Your task to perform on an android device: Open Chrome and go to the settings page Image 0: 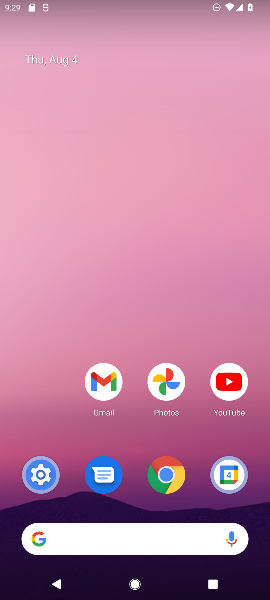
Step 0: drag from (131, 502) to (183, 187)
Your task to perform on an android device: Open Chrome and go to the settings page Image 1: 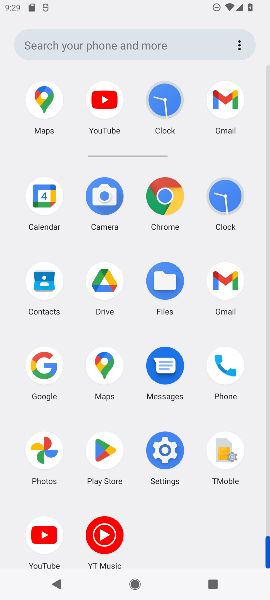
Step 1: click (163, 198)
Your task to perform on an android device: Open Chrome and go to the settings page Image 2: 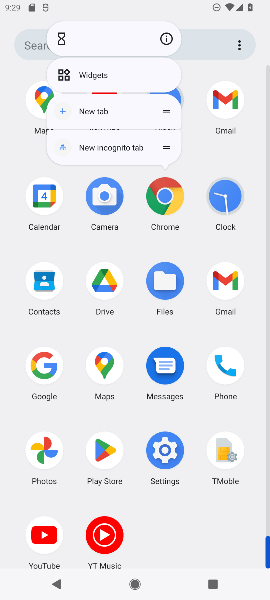
Step 2: click (164, 37)
Your task to perform on an android device: Open Chrome and go to the settings page Image 3: 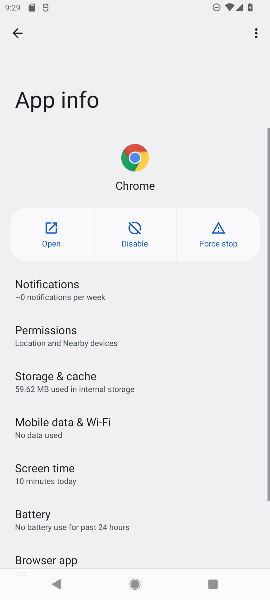
Step 3: click (45, 239)
Your task to perform on an android device: Open Chrome and go to the settings page Image 4: 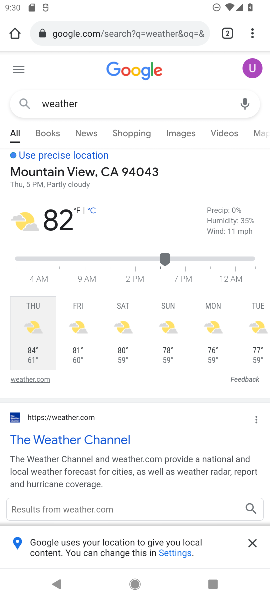
Step 4: task complete